Your task to perform on an android device: Go to sound settings Image 0: 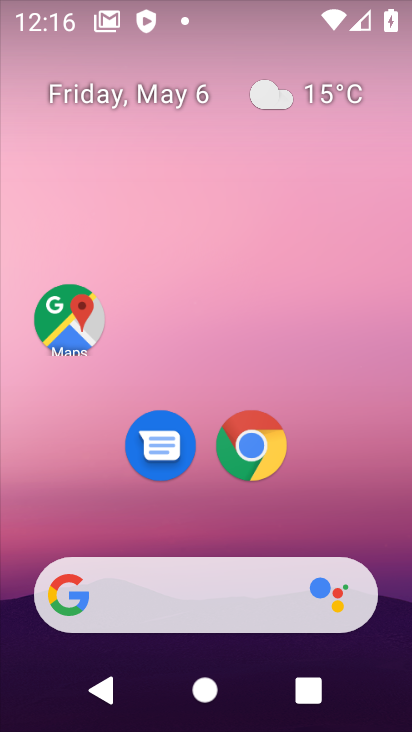
Step 0: drag from (345, 546) to (231, 198)
Your task to perform on an android device: Go to sound settings Image 1: 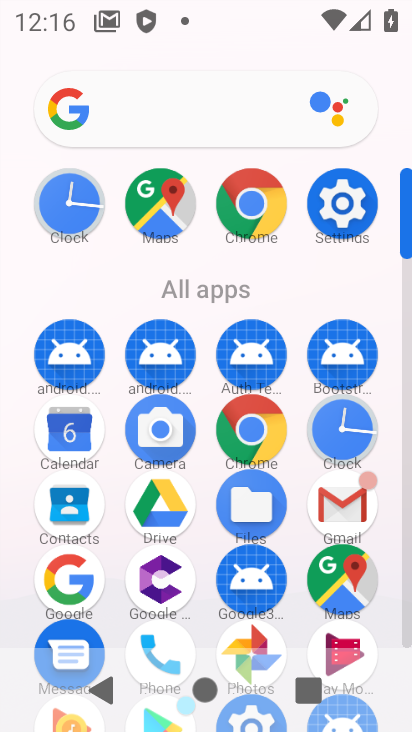
Step 1: click (343, 203)
Your task to perform on an android device: Go to sound settings Image 2: 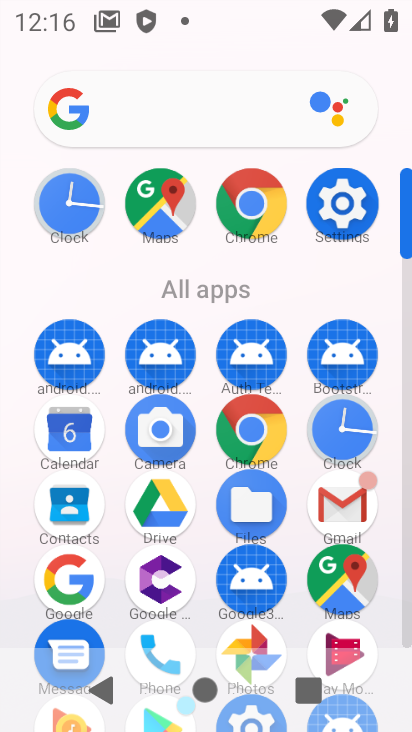
Step 2: click (343, 203)
Your task to perform on an android device: Go to sound settings Image 3: 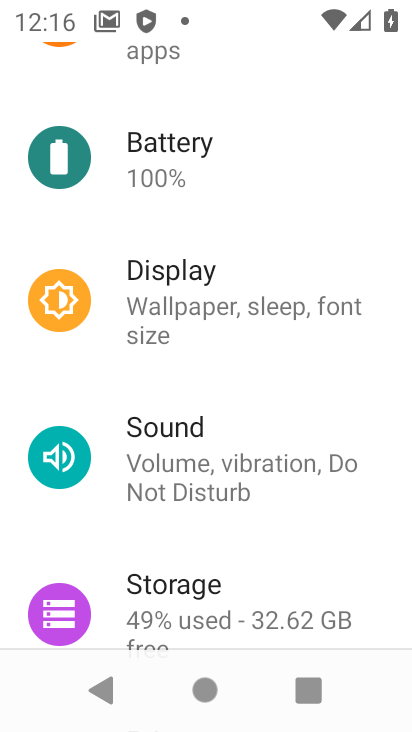
Step 3: click (159, 466)
Your task to perform on an android device: Go to sound settings Image 4: 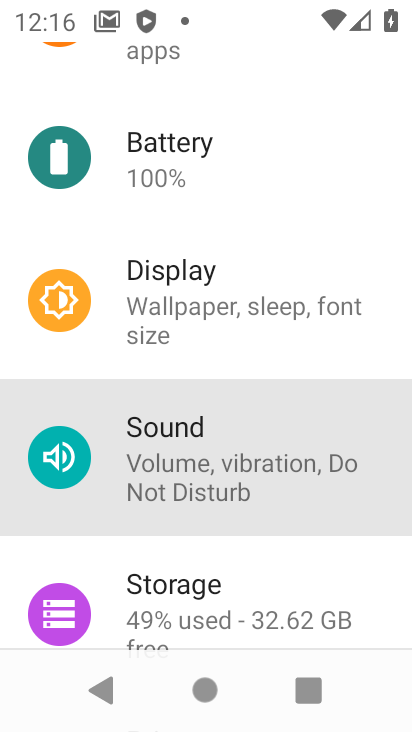
Step 4: click (159, 466)
Your task to perform on an android device: Go to sound settings Image 5: 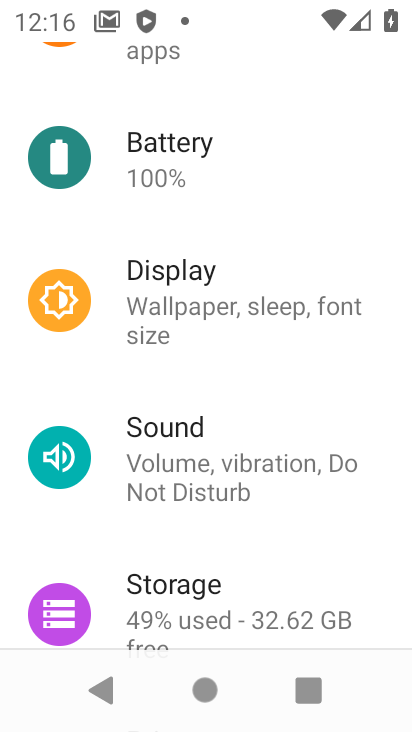
Step 5: click (159, 466)
Your task to perform on an android device: Go to sound settings Image 6: 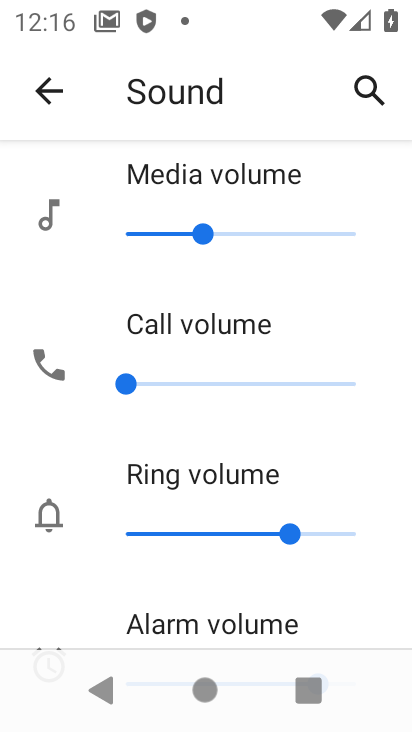
Step 6: task complete